Your task to perform on an android device: Open CNN.com Image 0: 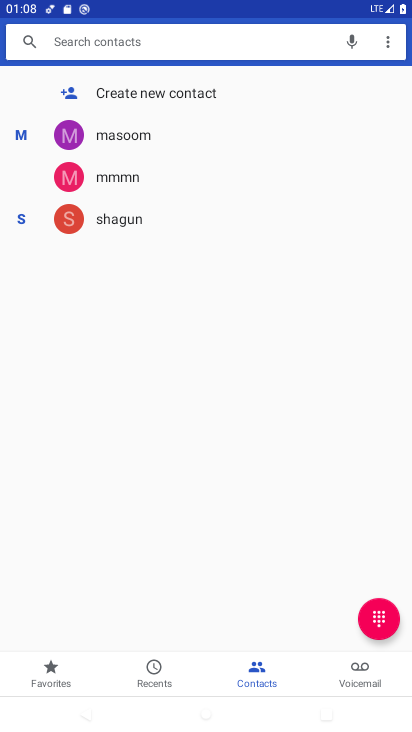
Step 0: press home button
Your task to perform on an android device: Open CNN.com Image 1: 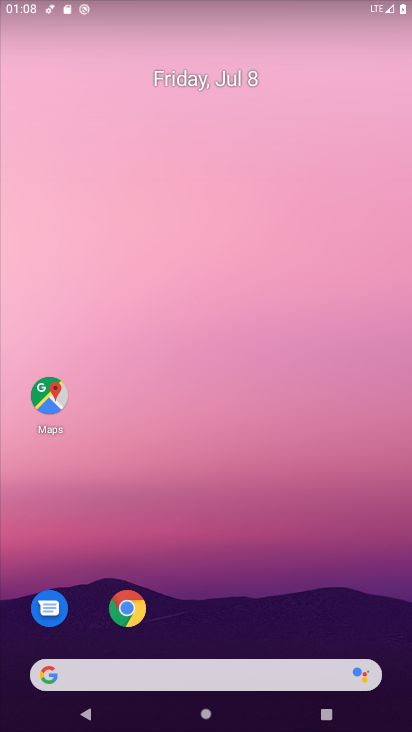
Step 1: click (124, 606)
Your task to perform on an android device: Open CNN.com Image 2: 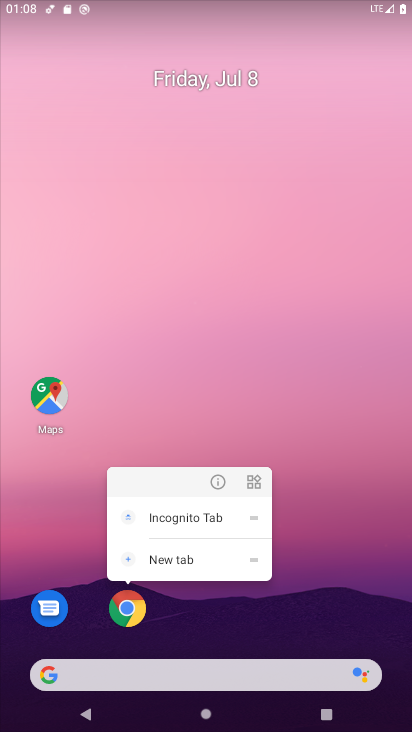
Step 2: click (124, 606)
Your task to perform on an android device: Open CNN.com Image 3: 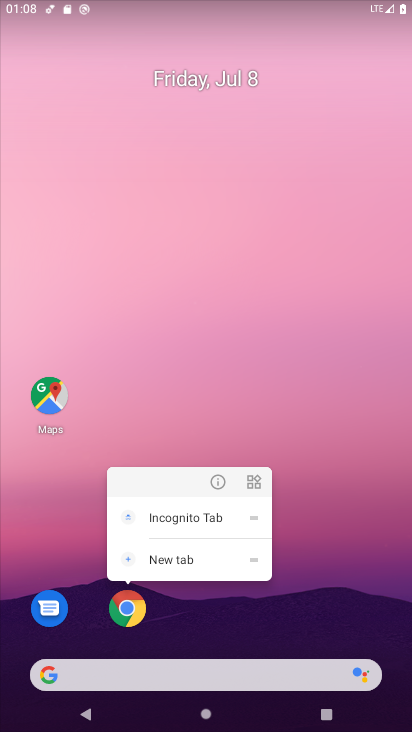
Step 3: click (124, 606)
Your task to perform on an android device: Open CNN.com Image 4: 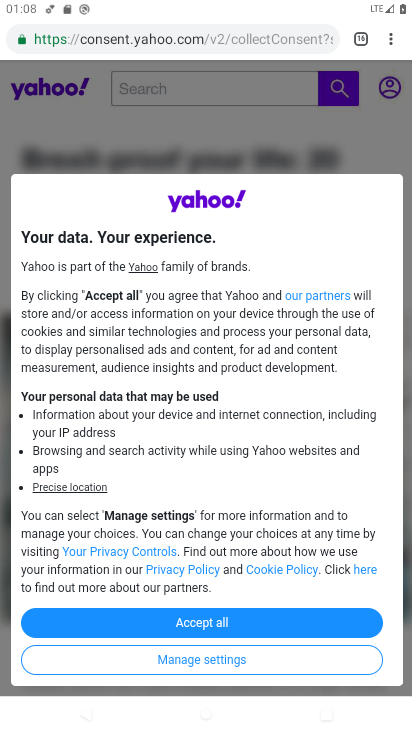
Step 4: click (407, 34)
Your task to perform on an android device: Open CNN.com Image 5: 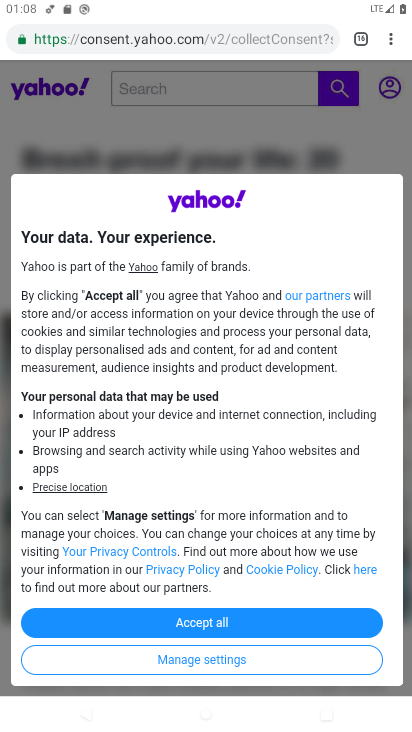
Step 5: click (395, 38)
Your task to perform on an android device: Open CNN.com Image 6: 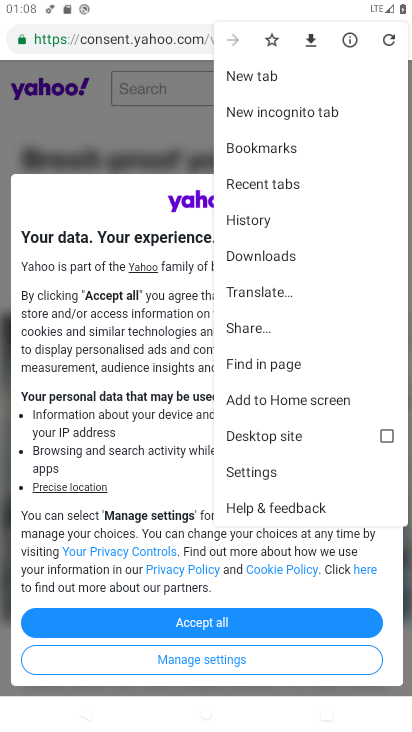
Step 6: click (264, 78)
Your task to perform on an android device: Open CNN.com Image 7: 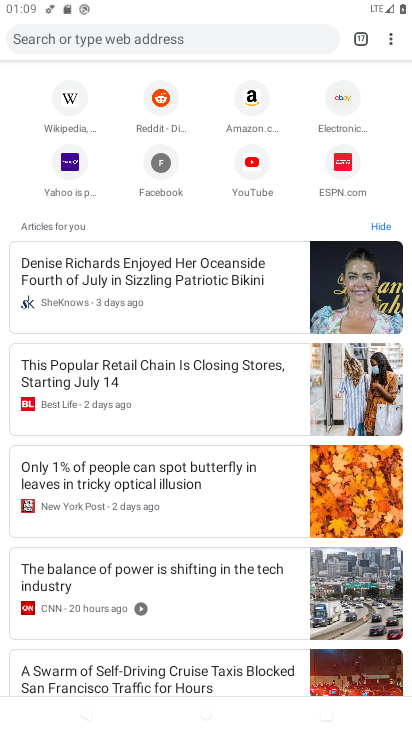
Step 7: click (224, 33)
Your task to perform on an android device: Open CNN.com Image 8: 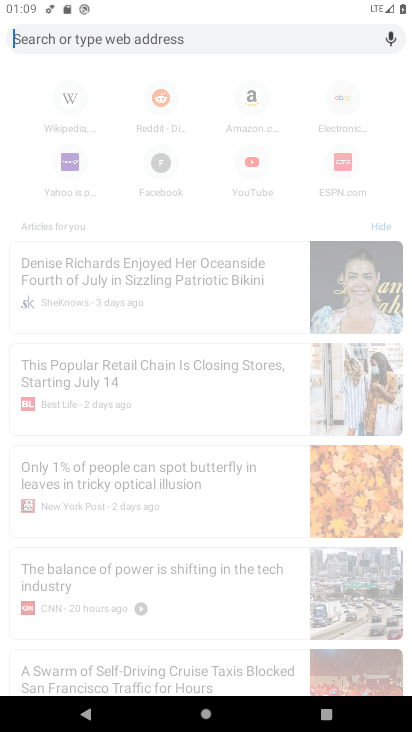
Step 8: type "CNN.com "
Your task to perform on an android device: Open CNN.com Image 9: 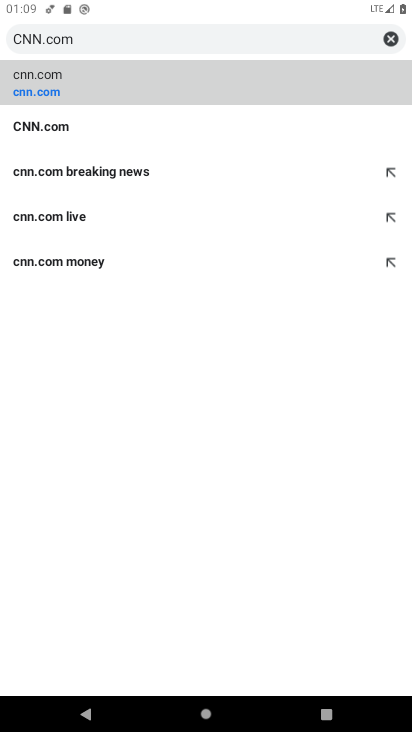
Step 9: click (166, 89)
Your task to perform on an android device: Open CNN.com Image 10: 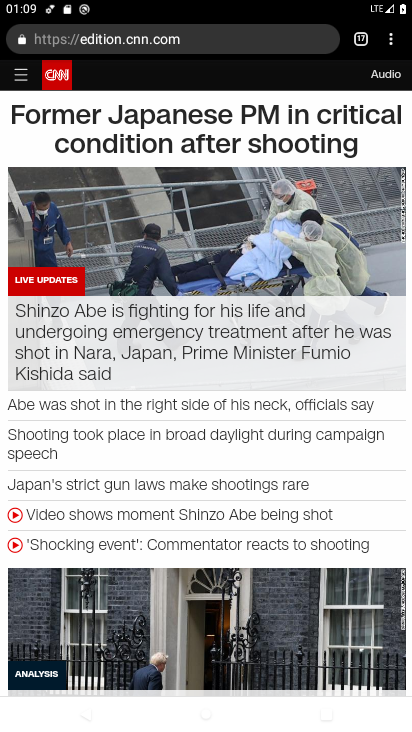
Step 10: task complete